Your task to perform on an android device: Open eBay Image 0: 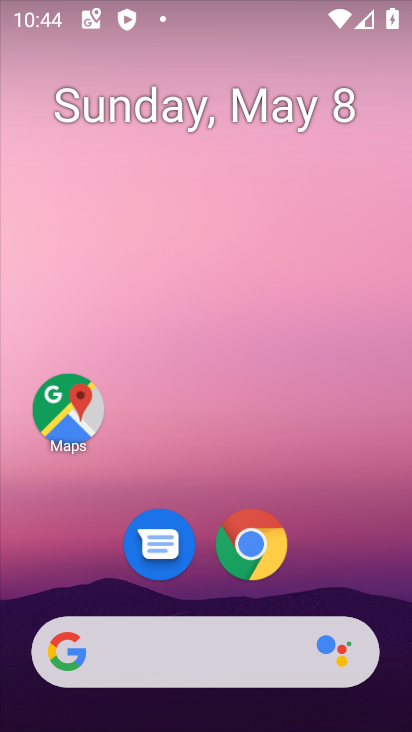
Step 0: click (338, 564)
Your task to perform on an android device: Open eBay Image 1: 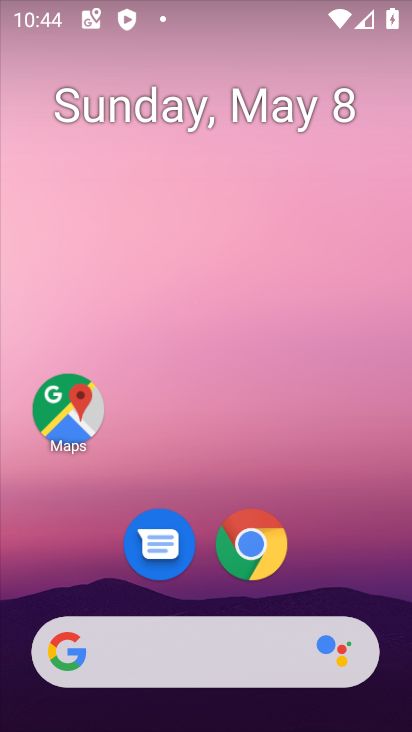
Step 1: click (272, 562)
Your task to perform on an android device: Open eBay Image 2: 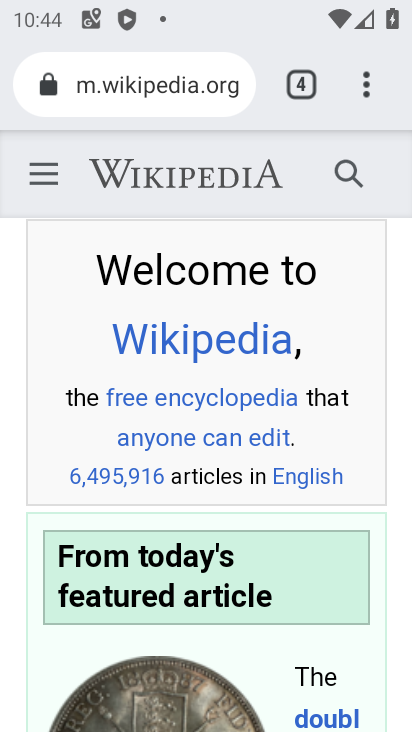
Step 2: click (184, 77)
Your task to perform on an android device: Open eBay Image 3: 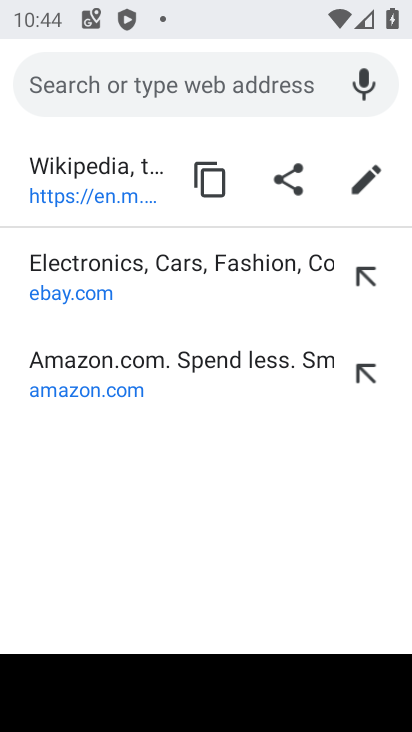
Step 3: click (89, 309)
Your task to perform on an android device: Open eBay Image 4: 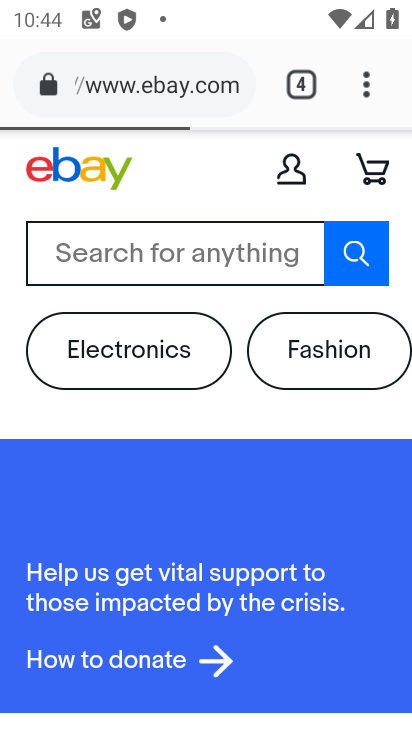
Step 4: task complete